Your task to perform on an android device: Go to Maps Image 0: 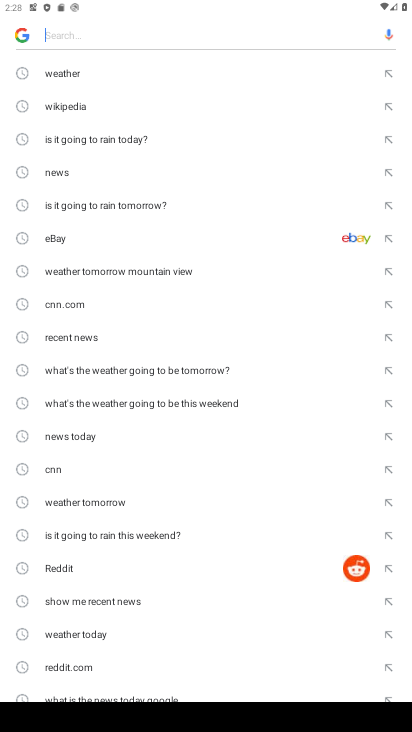
Step 0: press home button
Your task to perform on an android device: Go to Maps Image 1: 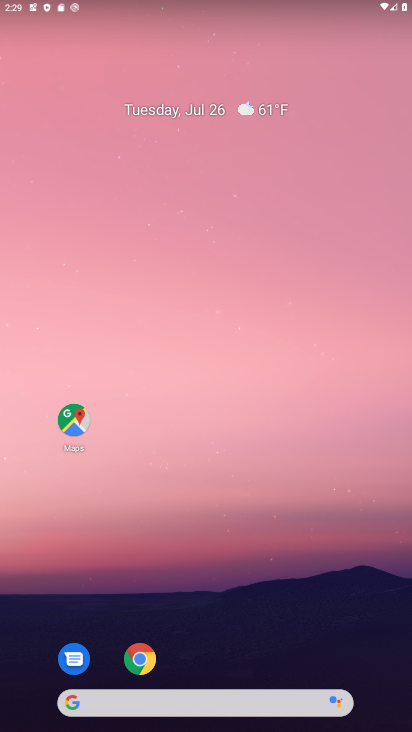
Step 1: click (68, 431)
Your task to perform on an android device: Go to Maps Image 2: 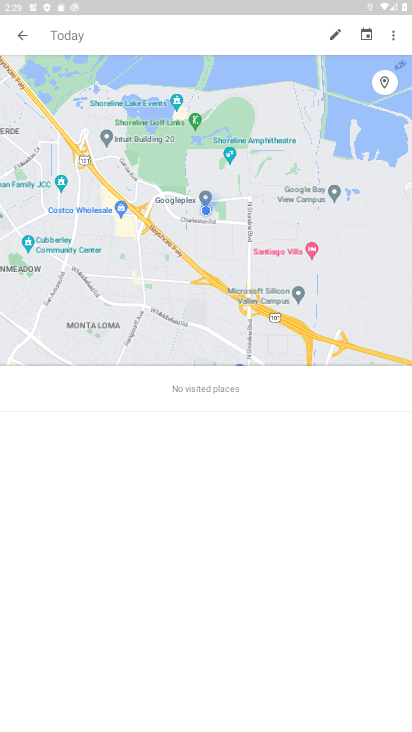
Step 2: task complete